Your task to perform on an android device: all mails in gmail Image 0: 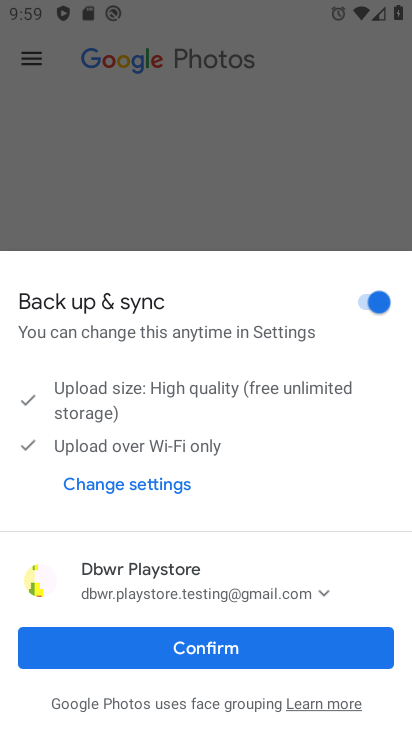
Step 0: press home button
Your task to perform on an android device: all mails in gmail Image 1: 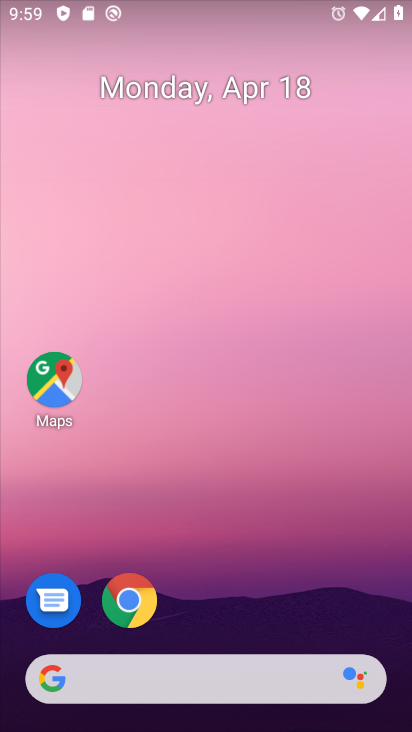
Step 1: drag from (185, 643) to (307, 15)
Your task to perform on an android device: all mails in gmail Image 2: 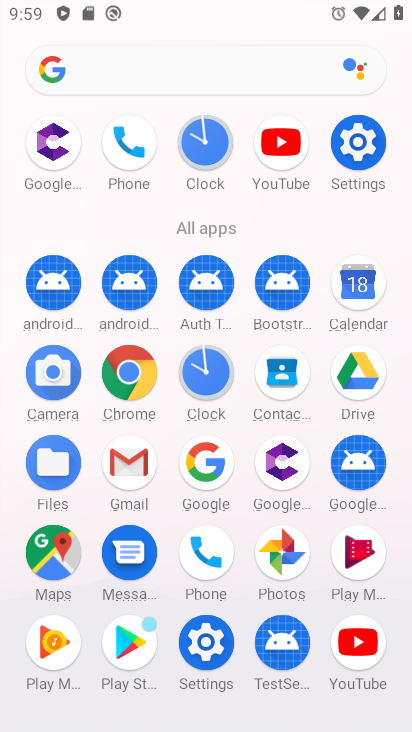
Step 2: click (128, 465)
Your task to perform on an android device: all mails in gmail Image 3: 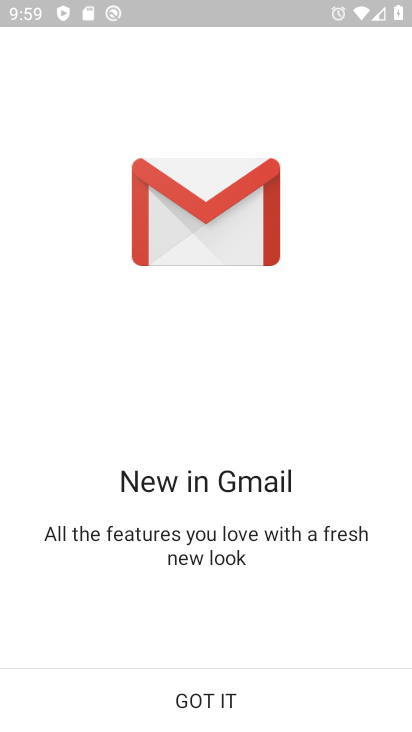
Step 3: click (187, 693)
Your task to perform on an android device: all mails in gmail Image 4: 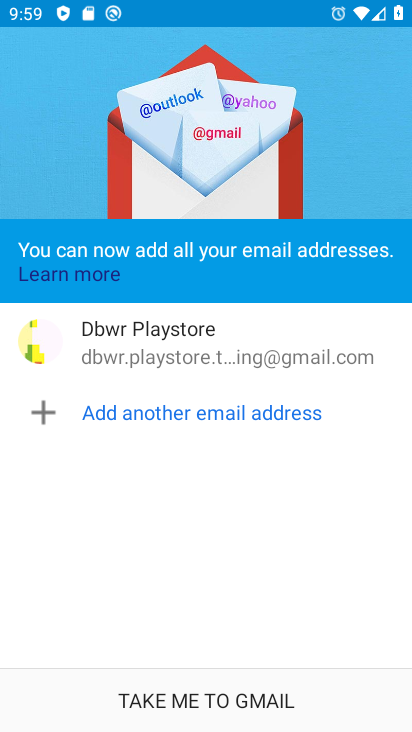
Step 4: click (193, 697)
Your task to perform on an android device: all mails in gmail Image 5: 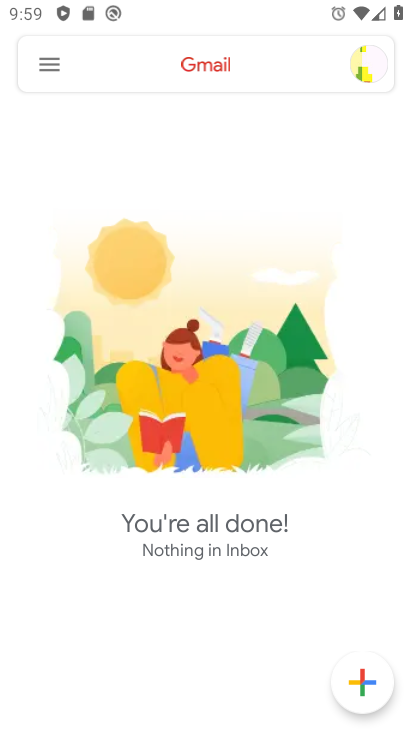
Step 5: click (38, 56)
Your task to perform on an android device: all mails in gmail Image 6: 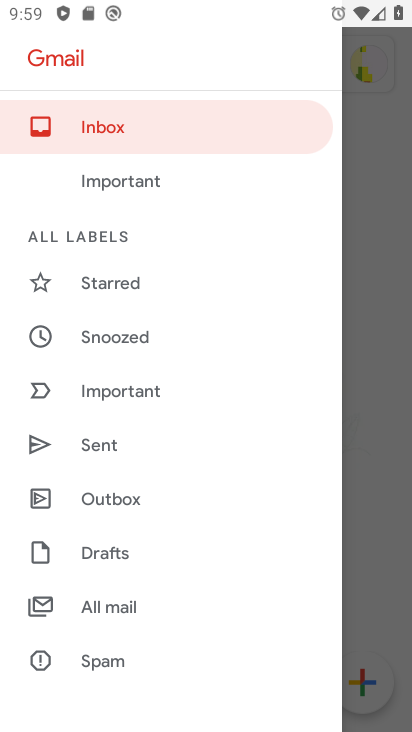
Step 6: click (128, 591)
Your task to perform on an android device: all mails in gmail Image 7: 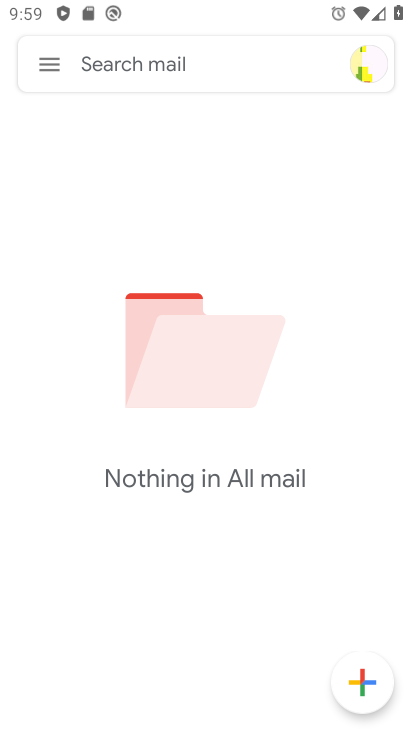
Step 7: task complete